Your task to perform on an android device: turn on the 24-hour format for clock Image 0: 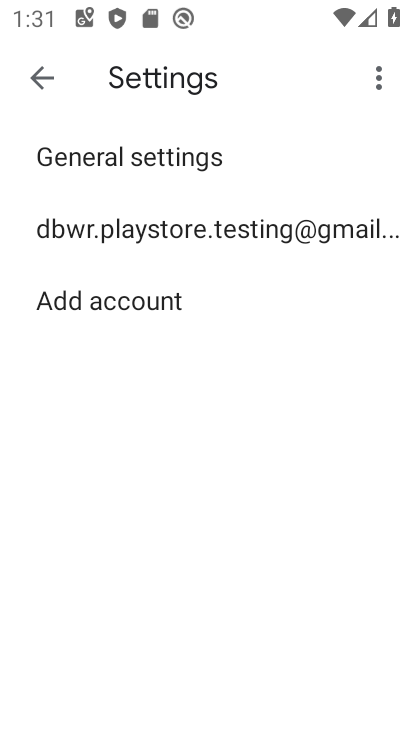
Step 0: press home button
Your task to perform on an android device: turn on the 24-hour format for clock Image 1: 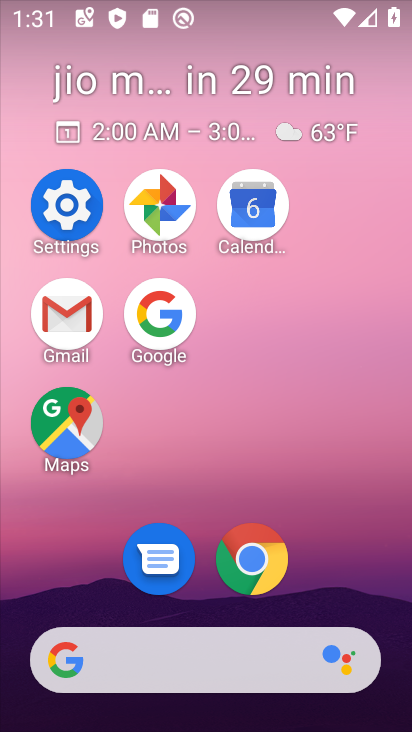
Step 1: drag from (356, 555) to (376, 47)
Your task to perform on an android device: turn on the 24-hour format for clock Image 2: 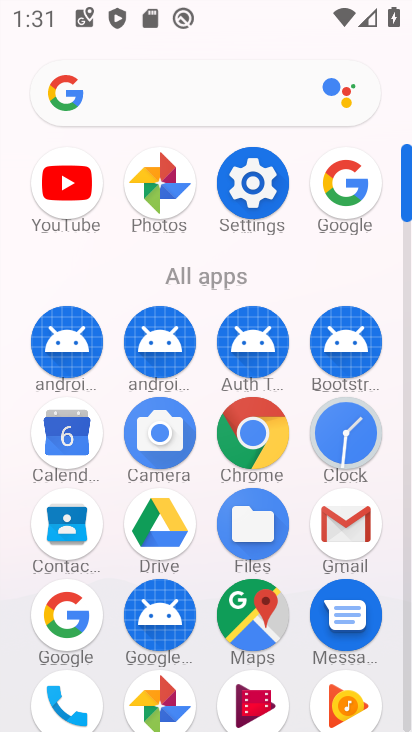
Step 2: drag from (358, 425) to (256, 290)
Your task to perform on an android device: turn on the 24-hour format for clock Image 3: 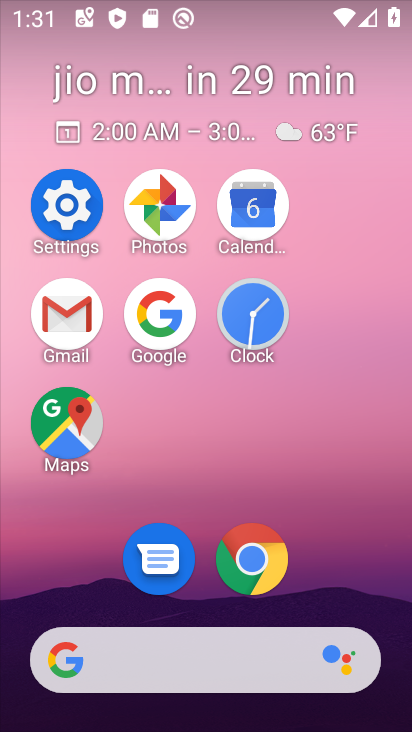
Step 3: click (243, 318)
Your task to perform on an android device: turn on the 24-hour format for clock Image 4: 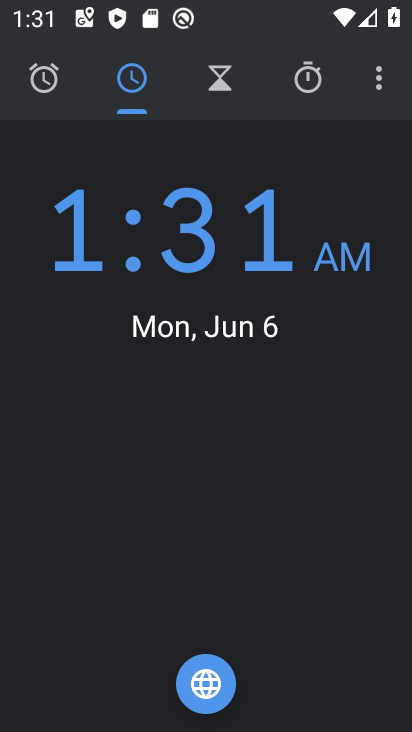
Step 4: click (384, 87)
Your task to perform on an android device: turn on the 24-hour format for clock Image 5: 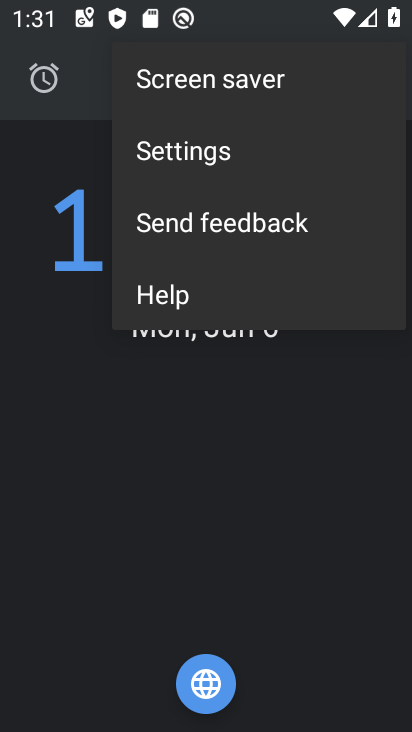
Step 5: click (293, 154)
Your task to perform on an android device: turn on the 24-hour format for clock Image 6: 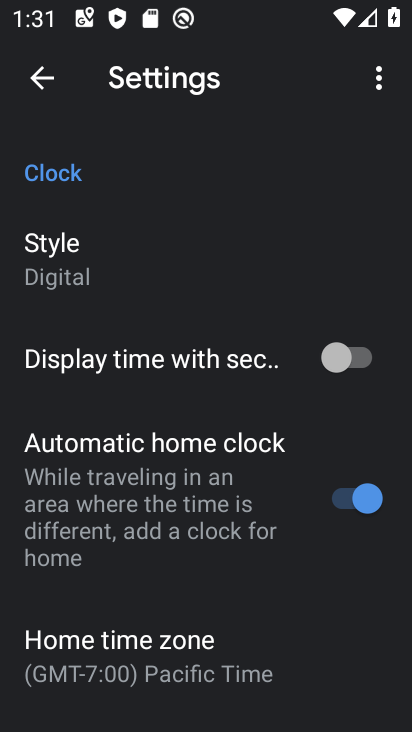
Step 6: drag from (150, 571) to (190, 173)
Your task to perform on an android device: turn on the 24-hour format for clock Image 7: 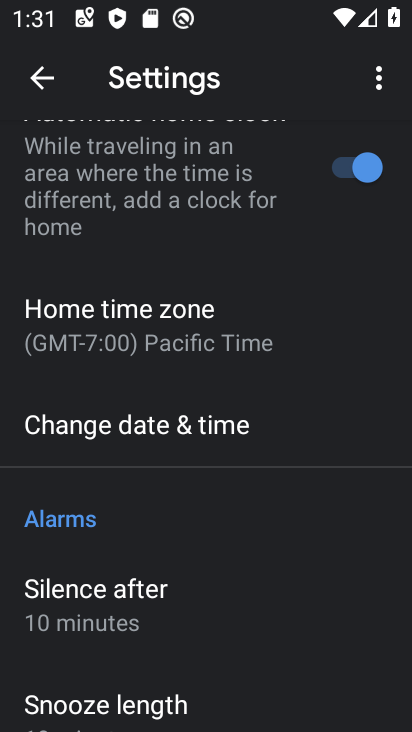
Step 7: click (202, 426)
Your task to perform on an android device: turn on the 24-hour format for clock Image 8: 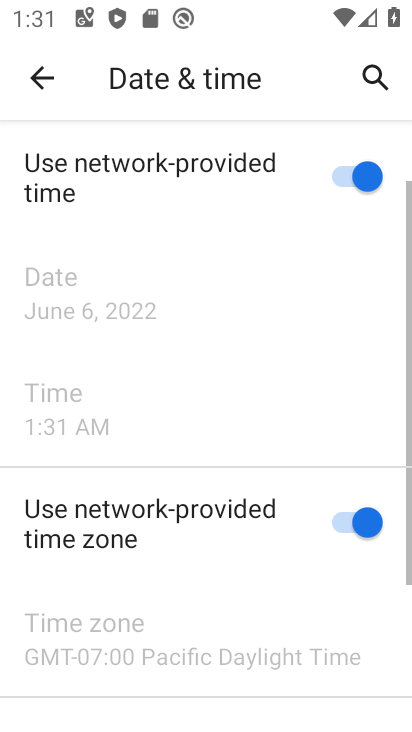
Step 8: drag from (265, 565) to (304, 184)
Your task to perform on an android device: turn on the 24-hour format for clock Image 9: 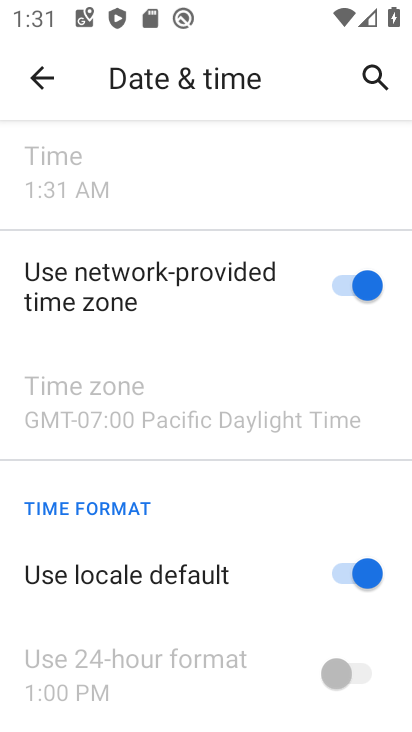
Step 9: click (355, 565)
Your task to perform on an android device: turn on the 24-hour format for clock Image 10: 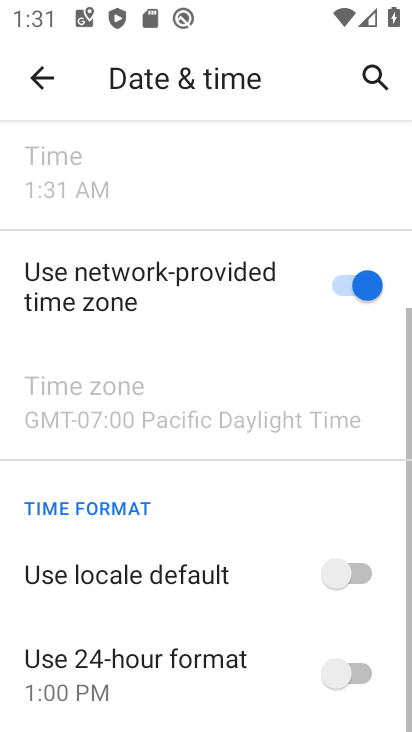
Step 10: click (332, 659)
Your task to perform on an android device: turn on the 24-hour format for clock Image 11: 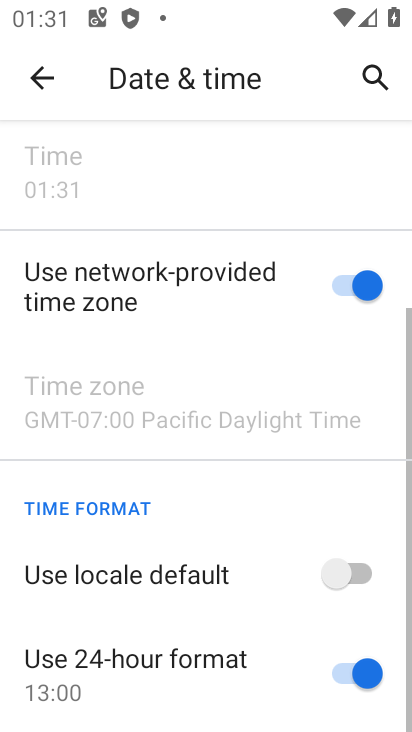
Step 11: task complete